Your task to perform on an android device: Open Youtube and go to the subscriptions tab Image 0: 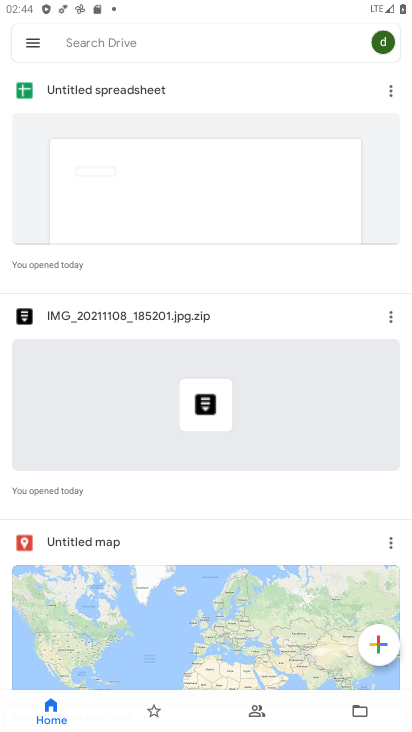
Step 0: drag from (227, 608) to (248, 428)
Your task to perform on an android device: Open Youtube and go to the subscriptions tab Image 1: 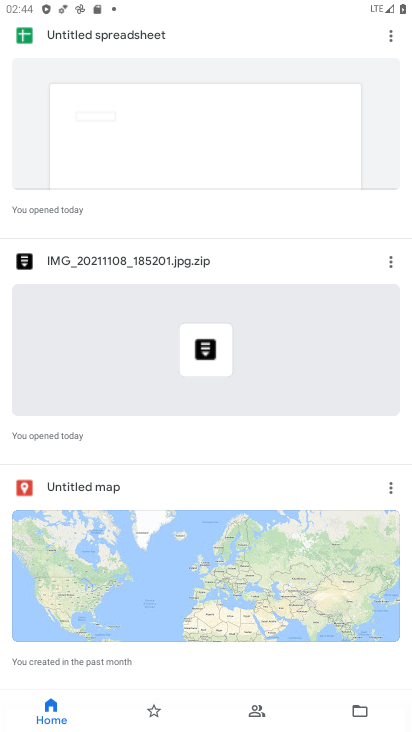
Step 1: press home button
Your task to perform on an android device: Open Youtube and go to the subscriptions tab Image 2: 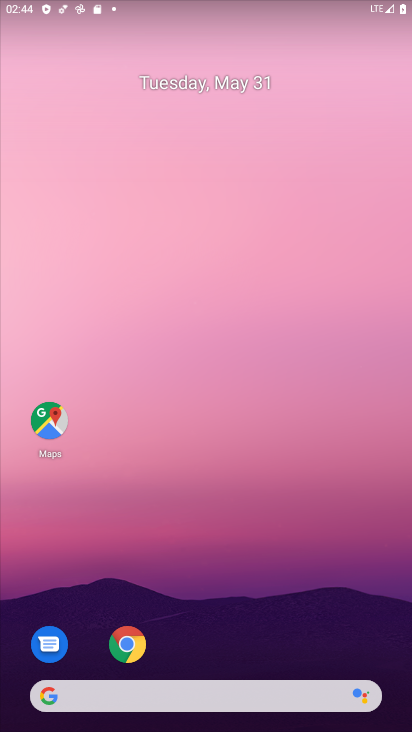
Step 2: drag from (279, 587) to (295, 177)
Your task to perform on an android device: Open Youtube and go to the subscriptions tab Image 3: 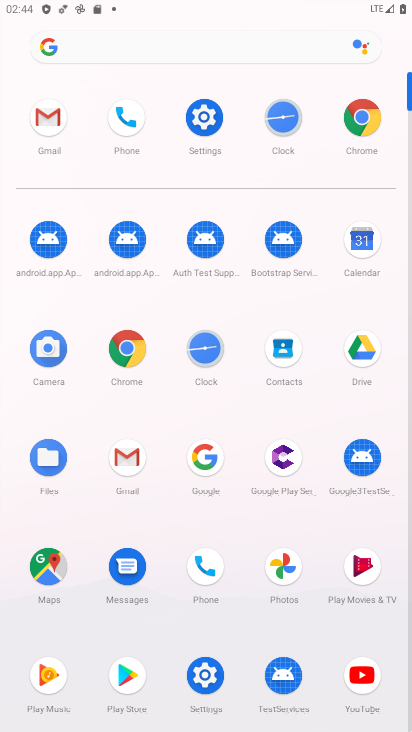
Step 3: click (366, 672)
Your task to perform on an android device: Open Youtube and go to the subscriptions tab Image 4: 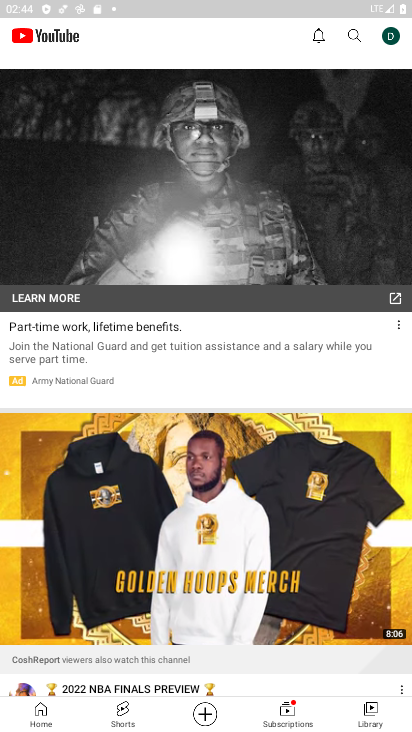
Step 4: click (289, 711)
Your task to perform on an android device: Open Youtube and go to the subscriptions tab Image 5: 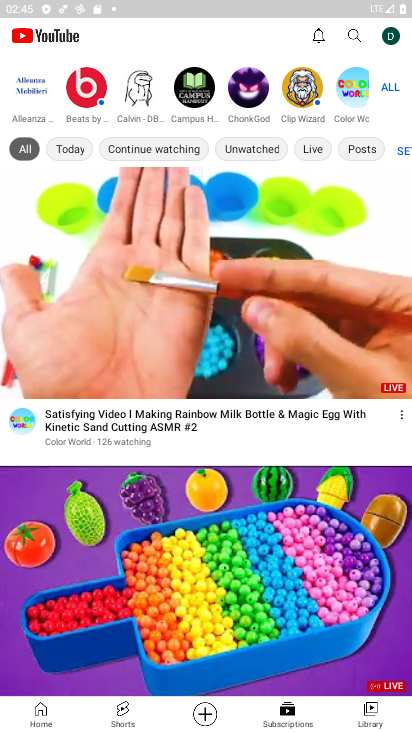
Step 5: task complete